Your task to perform on an android device: Open Google Chrome and open the bookmarks view Image 0: 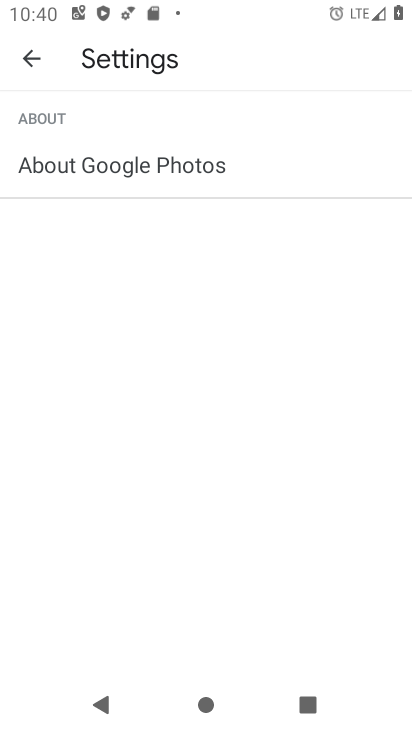
Step 0: press home button
Your task to perform on an android device: Open Google Chrome and open the bookmarks view Image 1: 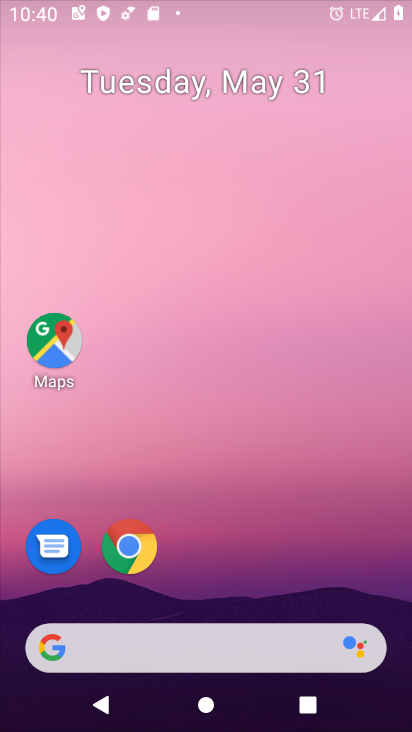
Step 1: drag from (200, 646) to (235, 41)
Your task to perform on an android device: Open Google Chrome and open the bookmarks view Image 2: 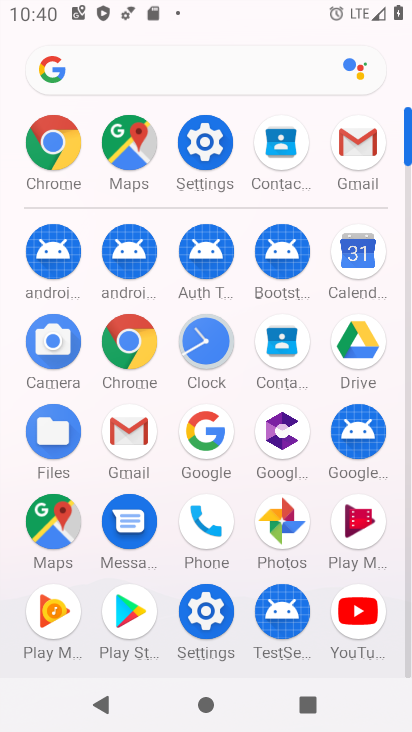
Step 2: click (121, 356)
Your task to perform on an android device: Open Google Chrome and open the bookmarks view Image 3: 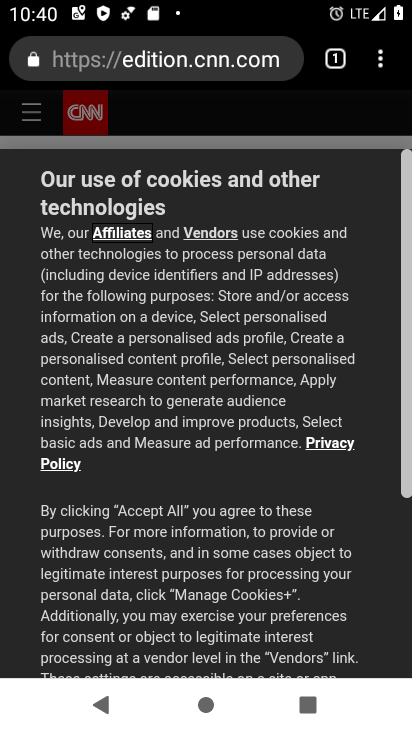
Step 3: task complete